Your task to perform on an android device: find photos in the google photos app Image 0: 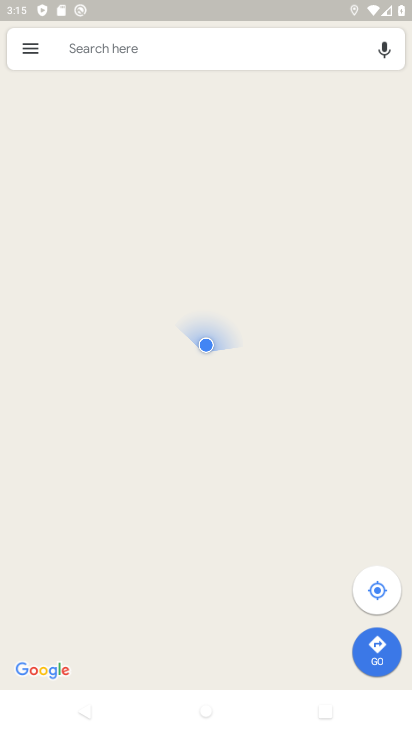
Step 0: click (21, 297)
Your task to perform on an android device: find photos in the google photos app Image 1: 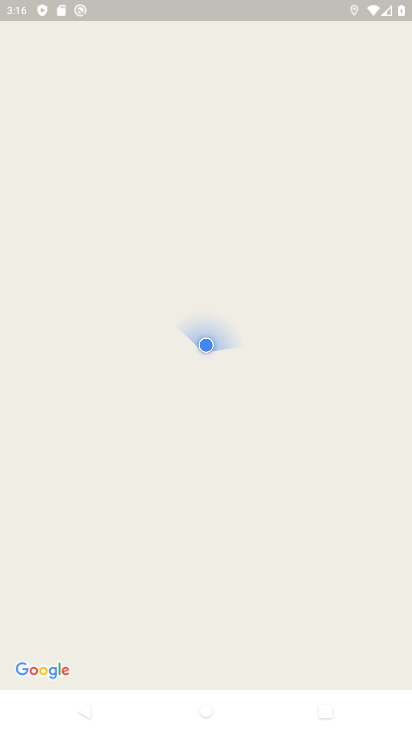
Step 1: press home button
Your task to perform on an android device: find photos in the google photos app Image 2: 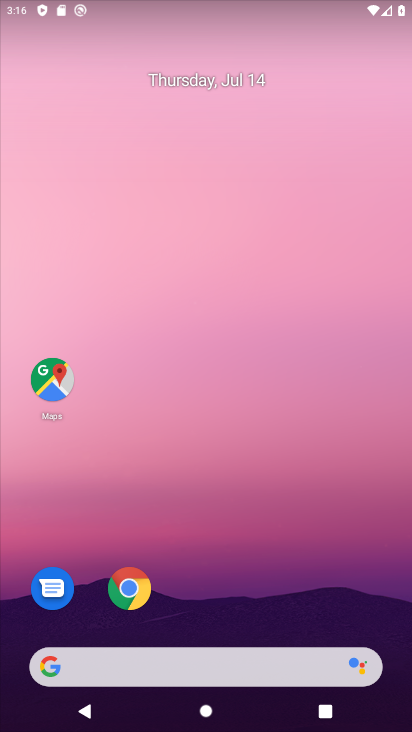
Step 2: drag from (233, 508) to (338, 17)
Your task to perform on an android device: find photos in the google photos app Image 3: 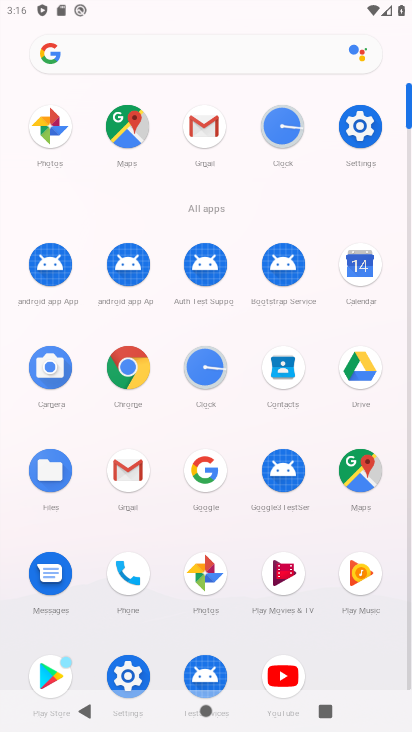
Step 3: click (202, 590)
Your task to perform on an android device: find photos in the google photos app Image 4: 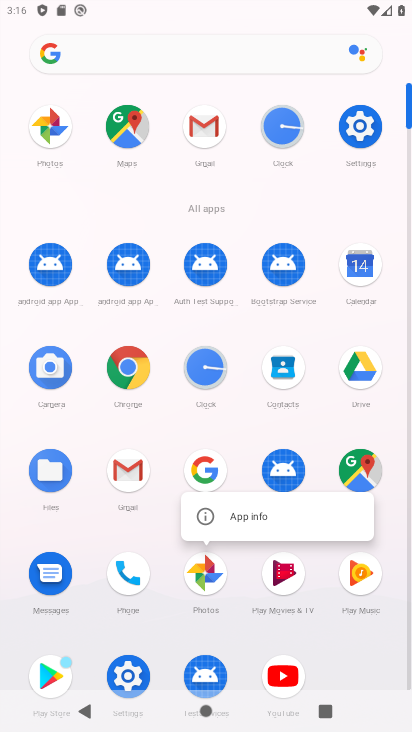
Step 4: click (220, 571)
Your task to perform on an android device: find photos in the google photos app Image 5: 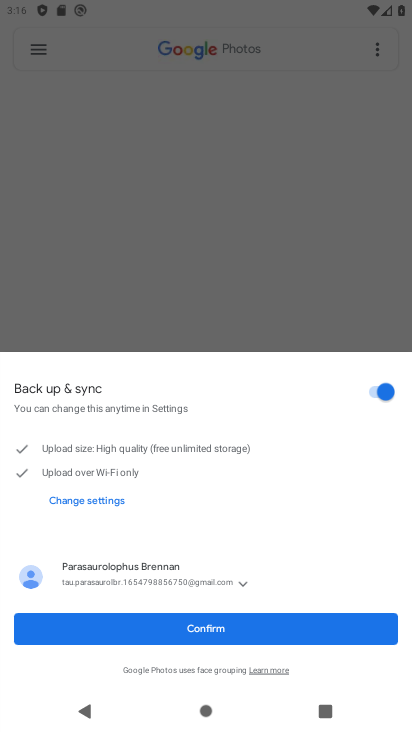
Step 5: click (194, 629)
Your task to perform on an android device: find photos in the google photos app Image 6: 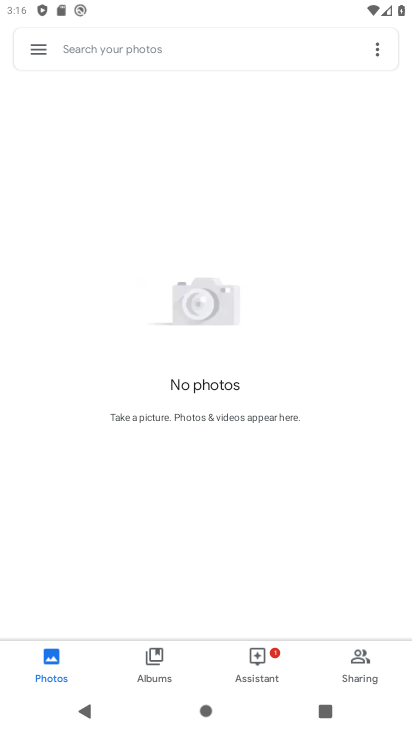
Step 6: task complete